Your task to perform on an android device: turn off javascript in the chrome app Image 0: 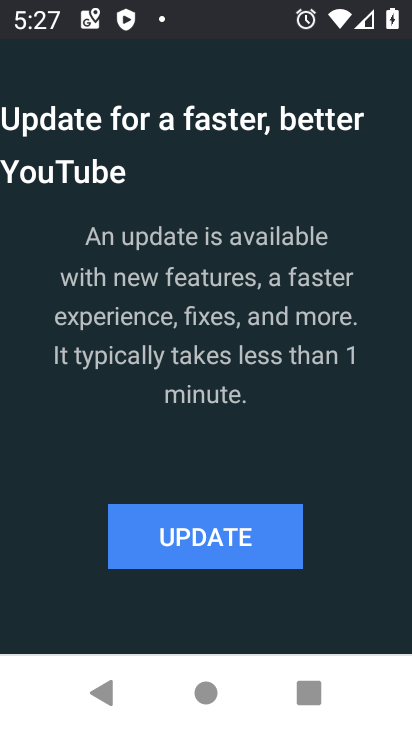
Step 0: press home button
Your task to perform on an android device: turn off javascript in the chrome app Image 1: 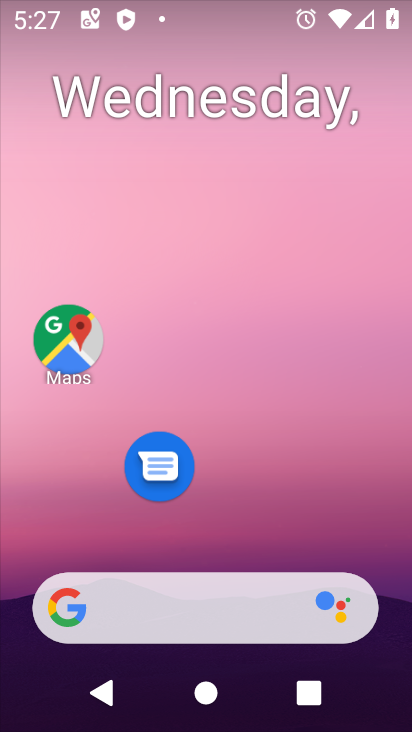
Step 1: drag from (303, 466) to (304, 71)
Your task to perform on an android device: turn off javascript in the chrome app Image 2: 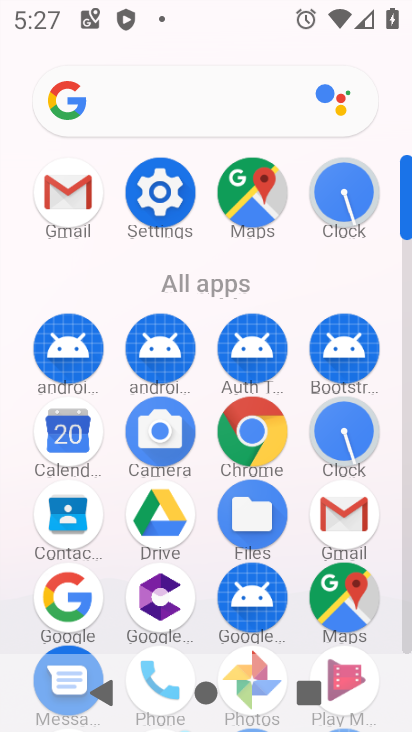
Step 2: click (261, 431)
Your task to perform on an android device: turn off javascript in the chrome app Image 3: 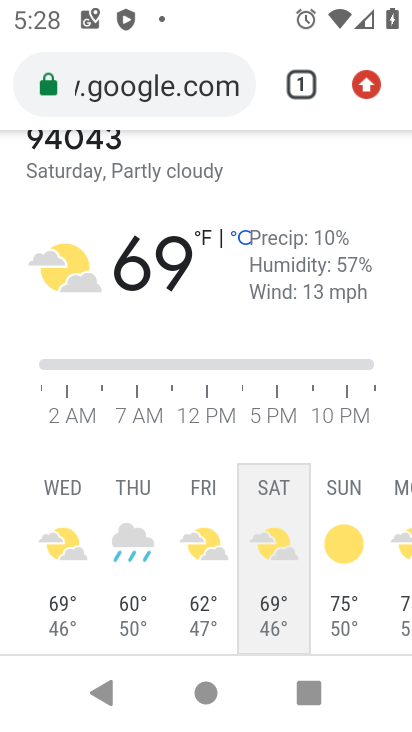
Step 3: drag from (362, 85) to (181, 518)
Your task to perform on an android device: turn off javascript in the chrome app Image 4: 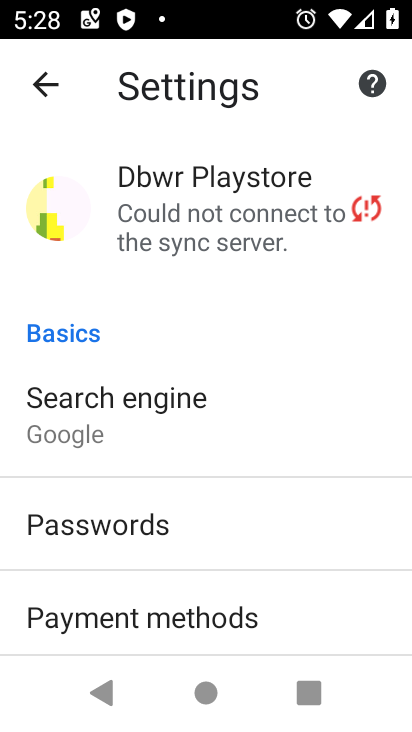
Step 4: drag from (363, 602) to (371, 191)
Your task to perform on an android device: turn off javascript in the chrome app Image 5: 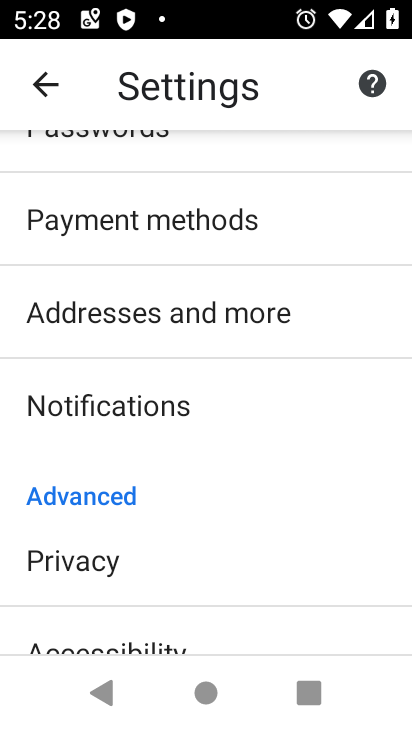
Step 5: drag from (335, 552) to (267, 196)
Your task to perform on an android device: turn off javascript in the chrome app Image 6: 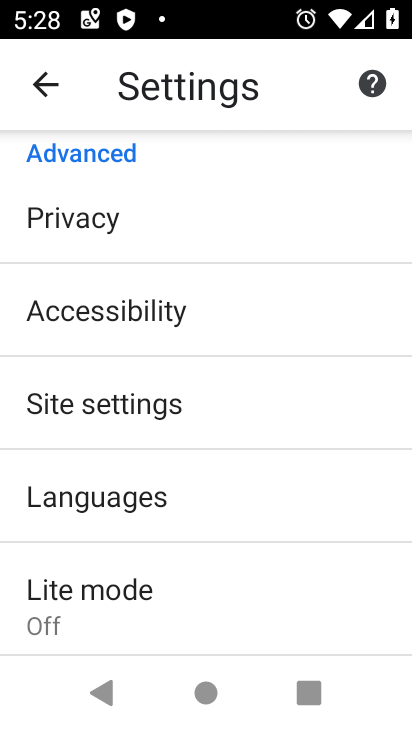
Step 6: drag from (300, 582) to (190, 207)
Your task to perform on an android device: turn off javascript in the chrome app Image 7: 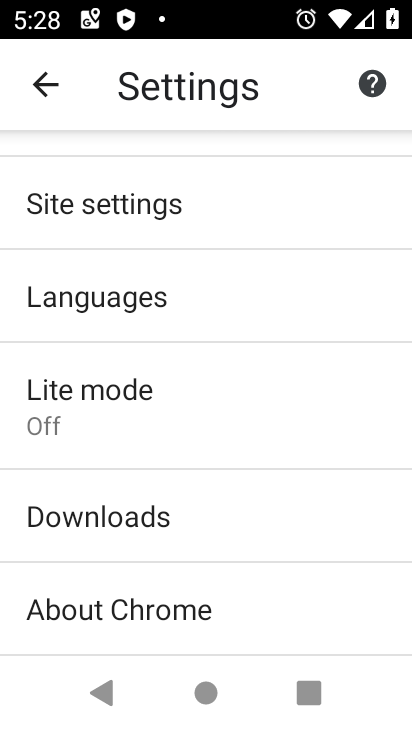
Step 7: click (113, 199)
Your task to perform on an android device: turn off javascript in the chrome app Image 8: 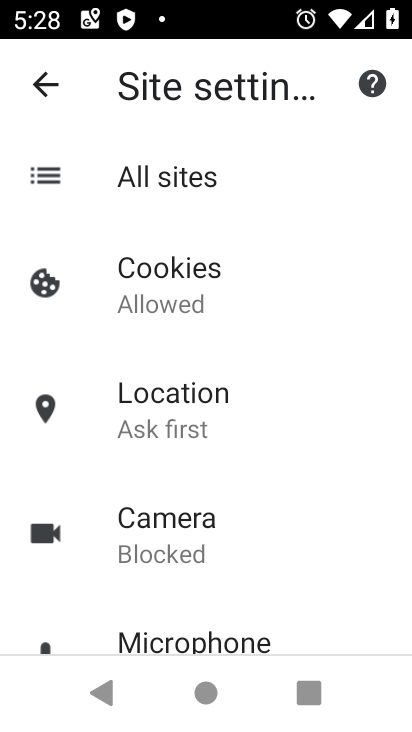
Step 8: drag from (320, 534) to (282, 232)
Your task to perform on an android device: turn off javascript in the chrome app Image 9: 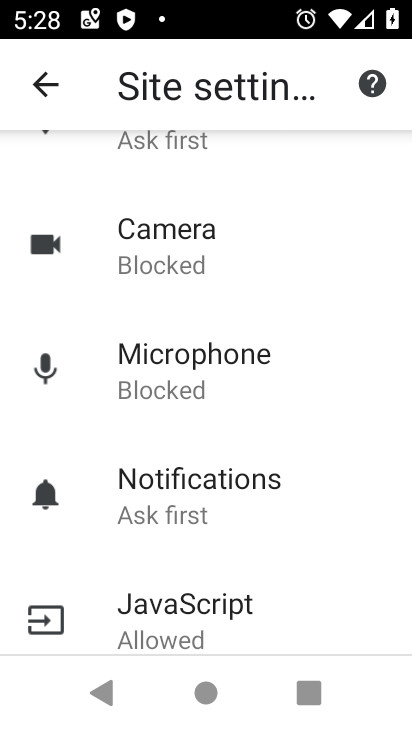
Step 9: click (154, 614)
Your task to perform on an android device: turn off javascript in the chrome app Image 10: 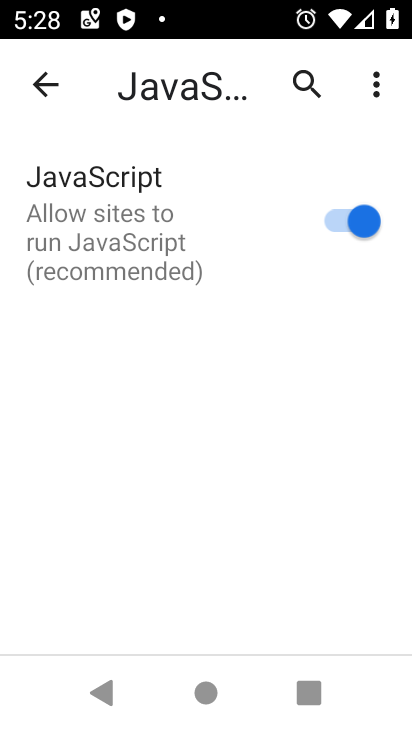
Step 10: click (323, 211)
Your task to perform on an android device: turn off javascript in the chrome app Image 11: 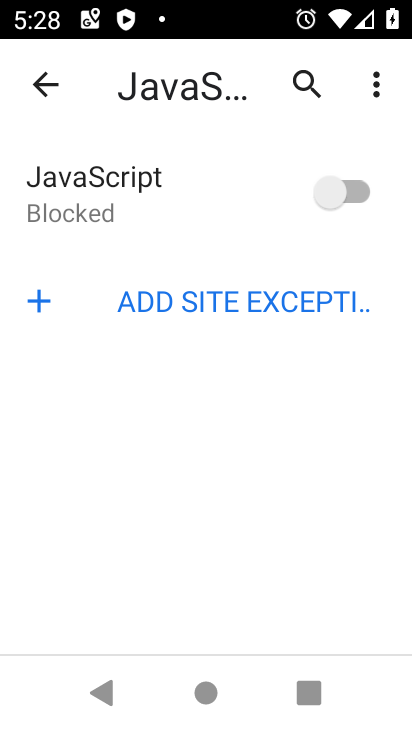
Step 11: task complete